Your task to perform on an android device: open a bookmark in the chrome app Image 0: 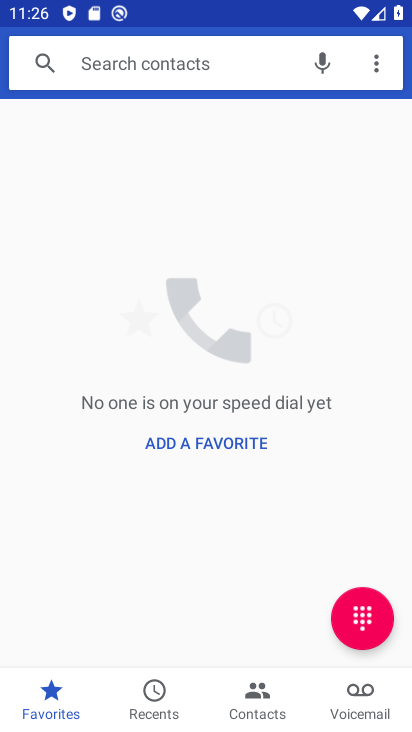
Step 0: press home button
Your task to perform on an android device: open a bookmark in the chrome app Image 1: 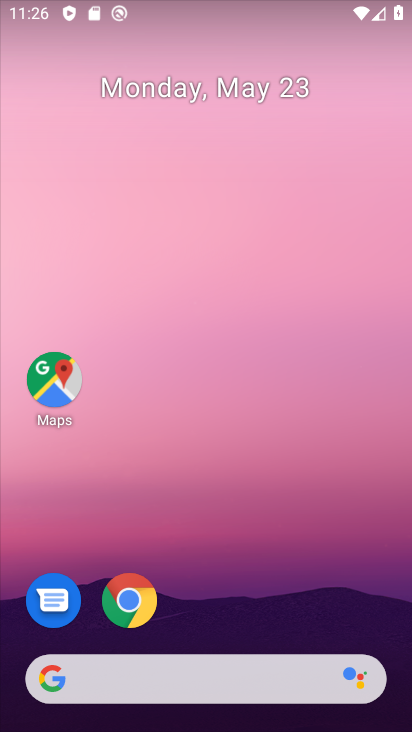
Step 1: click (138, 582)
Your task to perform on an android device: open a bookmark in the chrome app Image 2: 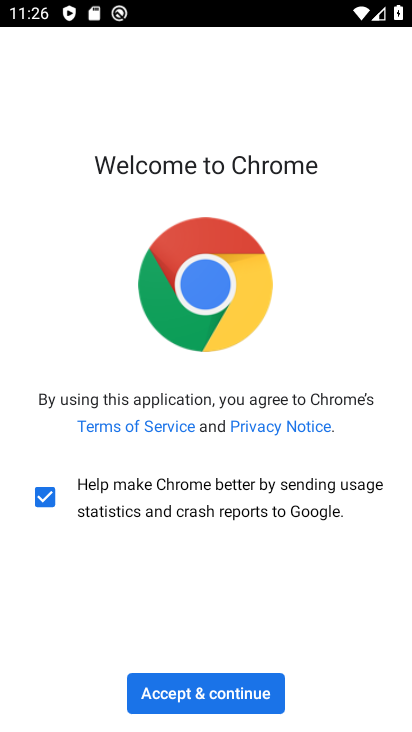
Step 2: click (225, 695)
Your task to perform on an android device: open a bookmark in the chrome app Image 3: 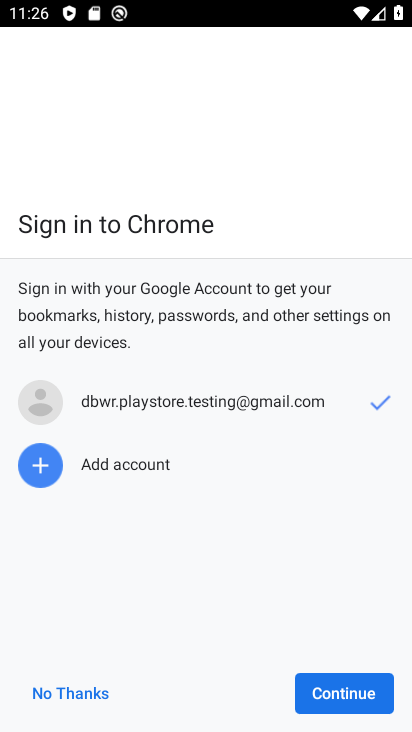
Step 3: click (341, 691)
Your task to perform on an android device: open a bookmark in the chrome app Image 4: 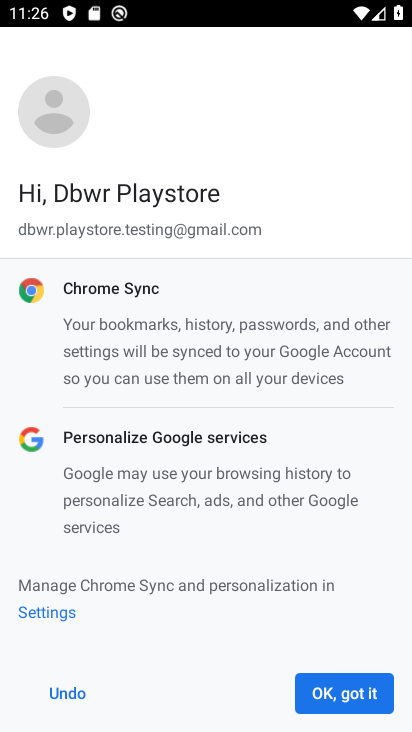
Step 4: click (352, 704)
Your task to perform on an android device: open a bookmark in the chrome app Image 5: 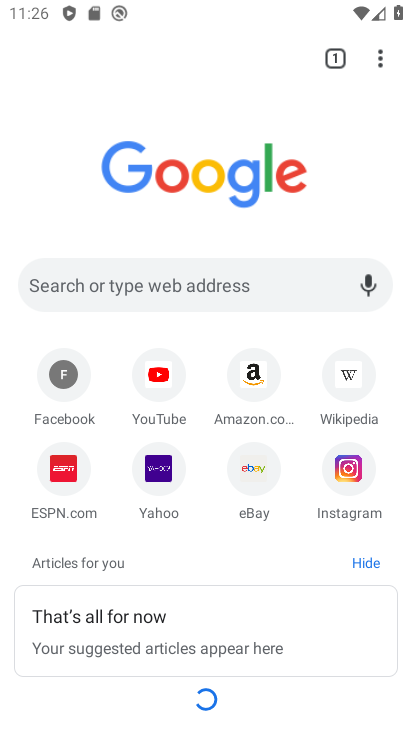
Step 5: click (381, 51)
Your task to perform on an android device: open a bookmark in the chrome app Image 6: 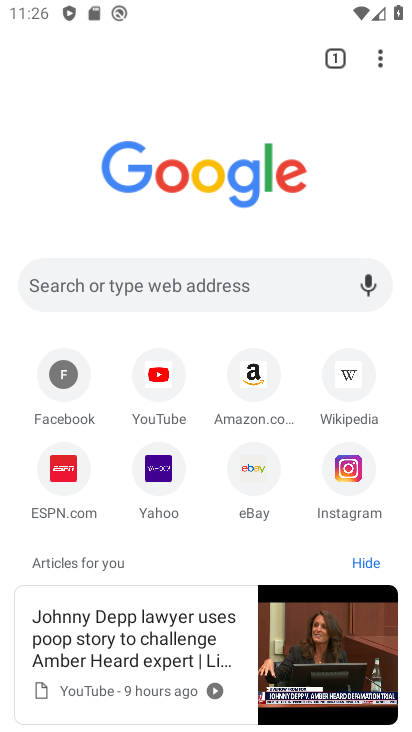
Step 6: click (381, 53)
Your task to perform on an android device: open a bookmark in the chrome app Image 7: 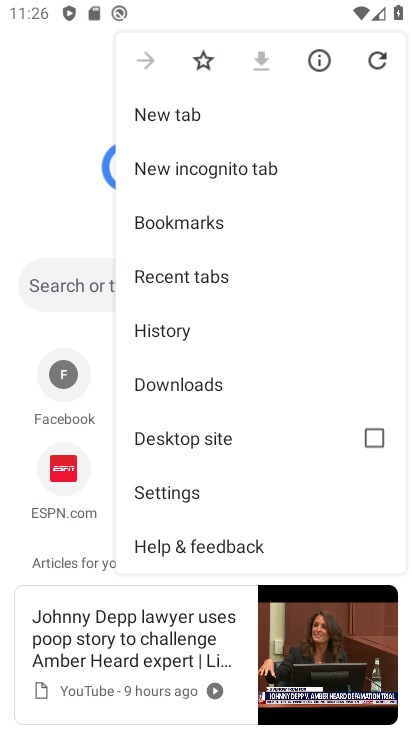
Step 7: click (198, 229)
Your task to perform on an android device: open a bookmark in the chrome app Image 8: 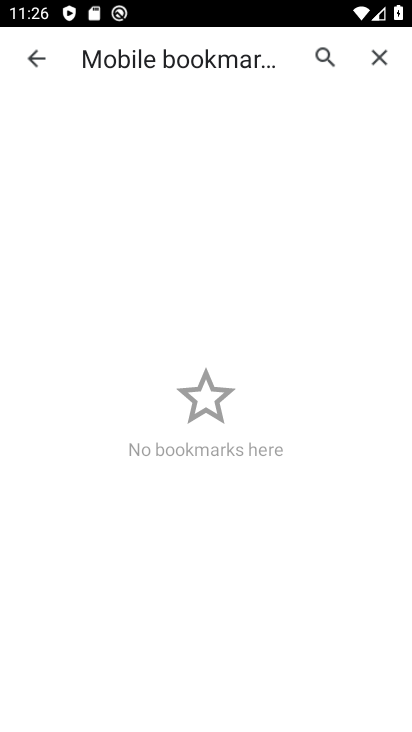
Step 8: task complete